Your task to perform on an android device: Open privacy settings Image 0: 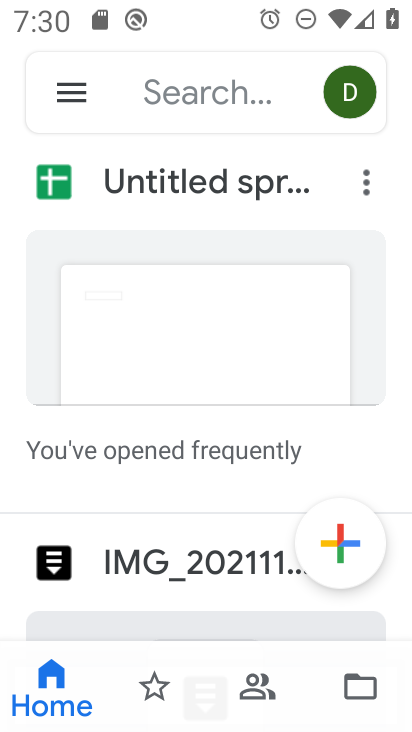
Step 0: press home button
Your task to perform on an android device: Open privacy settings Image 1: 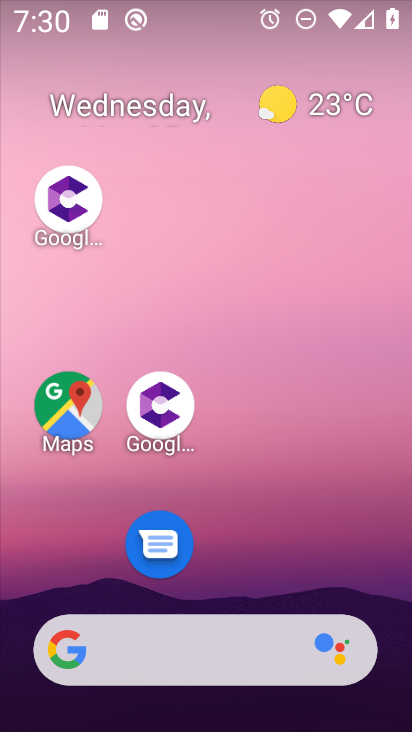
Step 1: drag from (307, 513) to (205, 38)
Your task to perform on an android device: Open privacy settings Image 2: 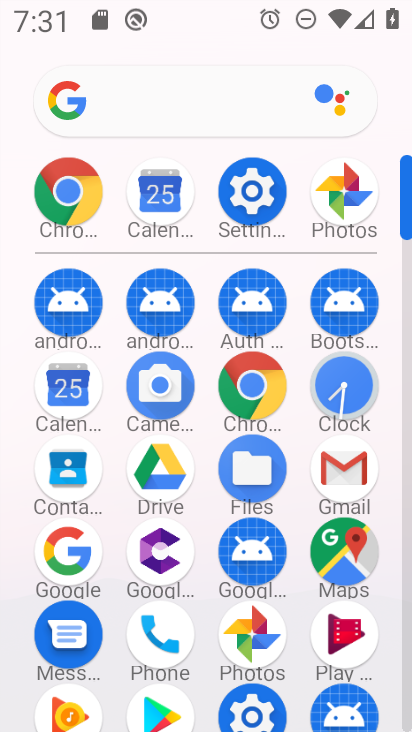
Step 2: click (245, 181)
Your task to perform on an android device: Open privacy settings Image 3: 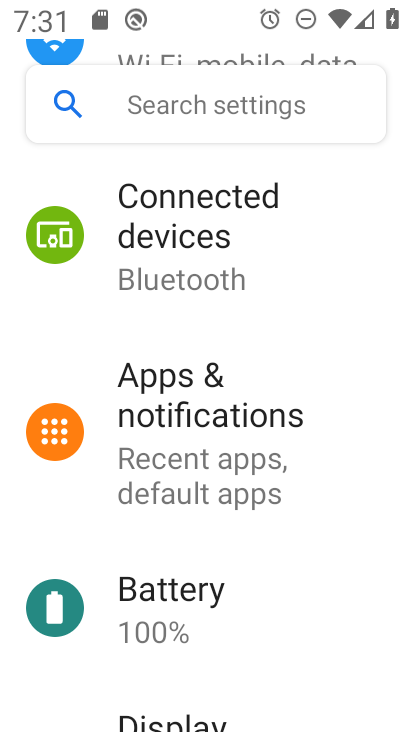
Step 3: drag from (225, 287) to (237, 716)
Your task to perform on an android device: Open privacy settings Image 4: 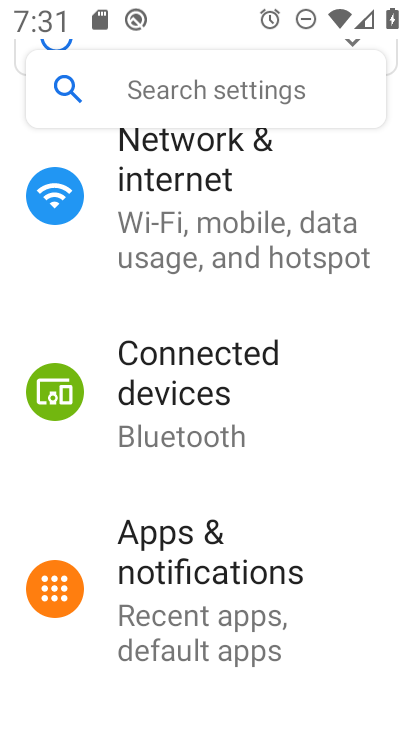
Step 4: drag from (275, 293) to (256, 633)
Your task to perform on an android device: Open privacy settings Image 5: 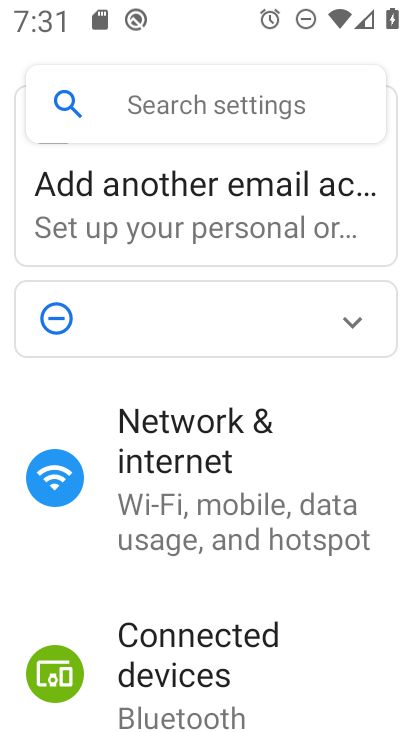
Step 5: drag from (256, 587) to (216, 150)
Your task to perform on an android device: Open privacy settings Image 6: 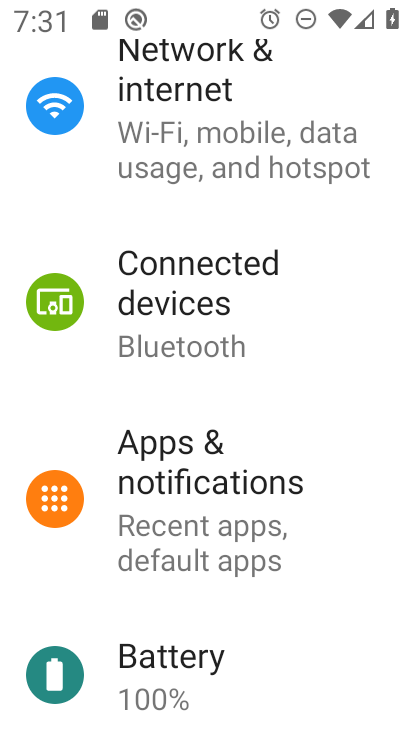
Step 6: drag from (305, 623) to (245, 212)
Your task to perform on an android device: Open privacy settings Image 7: 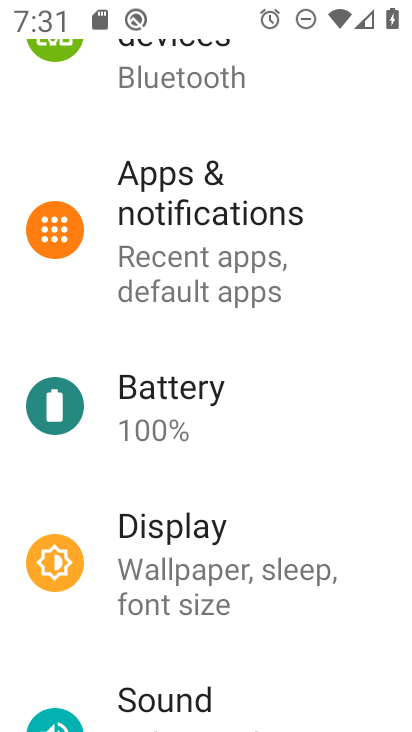
Step 7: drag from (261, 452) to (231, 188)
Your task to perform on an android device: Open privacy settings Image 8: 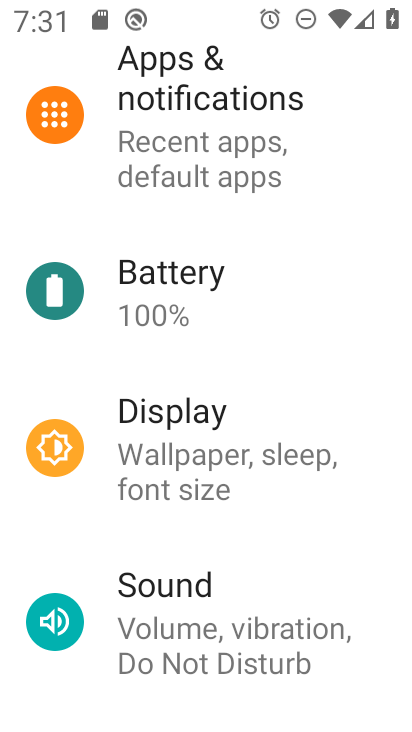
Step 8: drag from (230, 534) to (206, 228)
Your task to perform on an android device: Open privacy settings Image 9: 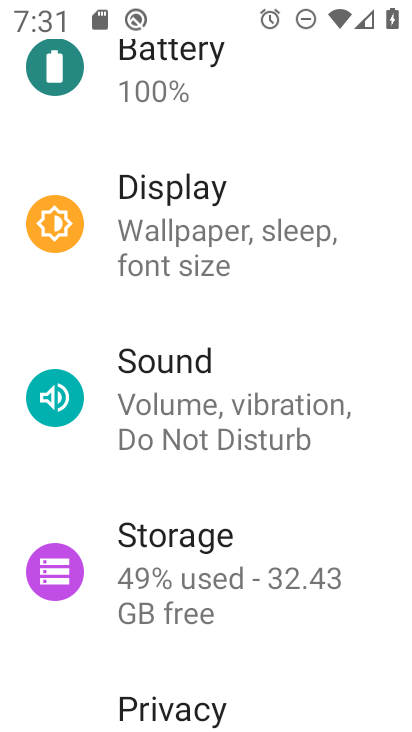
Step 9: drag from (239, 650) to (191, 228)
Your task to perform on an android device: Open privacy settings Image 10: 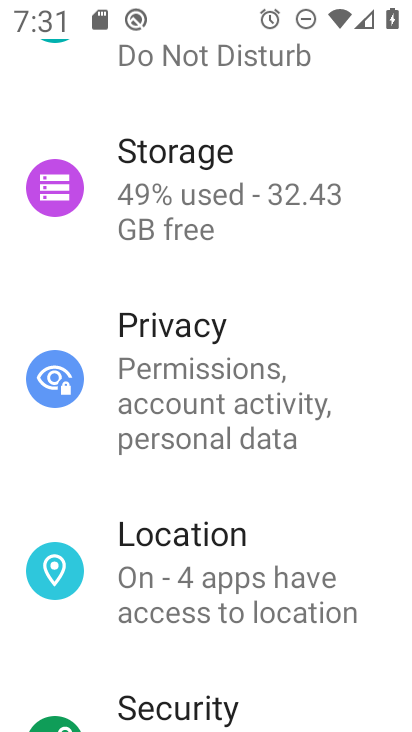
Step 10: click (165, 330)
Your task to perform on an android device: Open privacy settings Image 11: 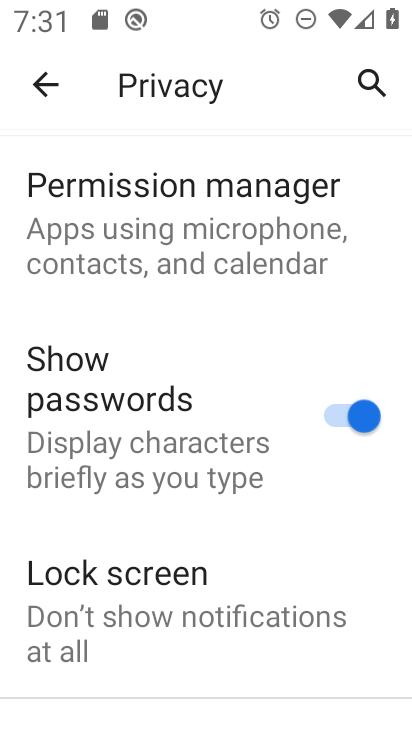
Step 11: task complete